Your task to perform on an android device: When is my next appointment? Image 0: 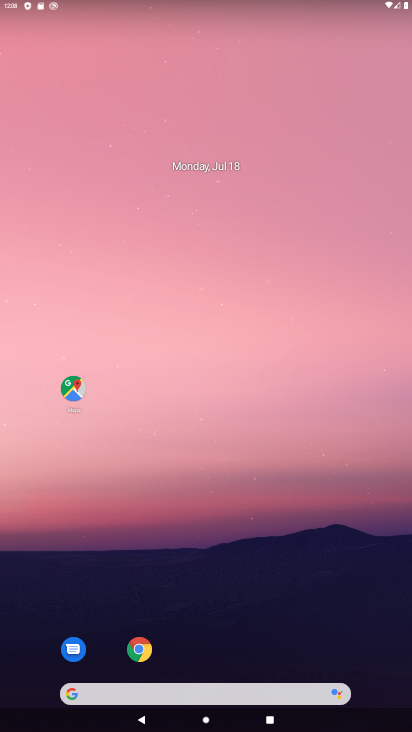
Step 0: drag from (206, 593) to (224, 31)
Your task to perform on an android device: When is my next appointment? Image 1: 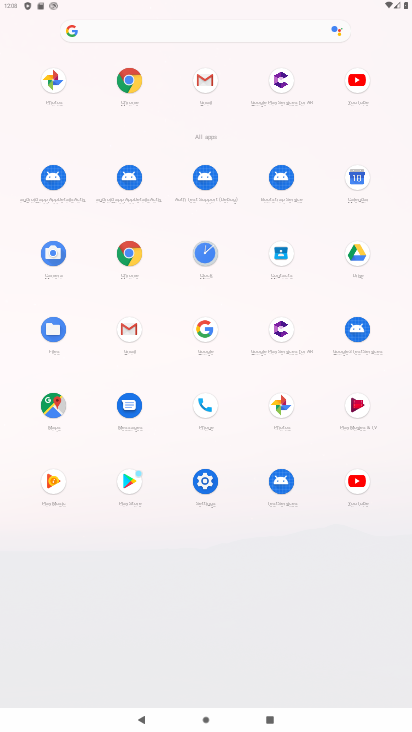
Step 1: click (360, 184)
Your task to perform on an android device: When is my next appointment? Image 2: 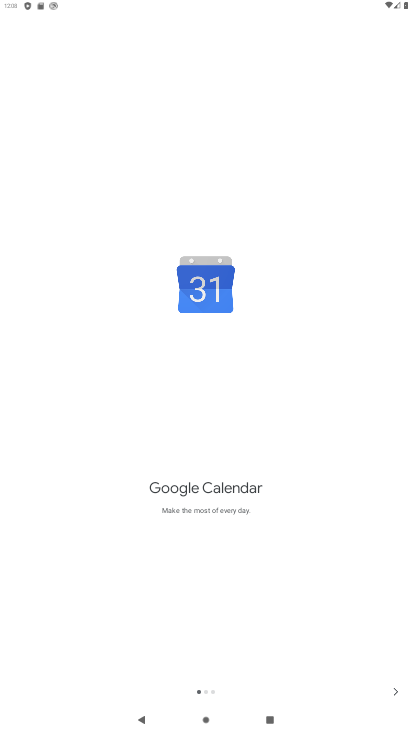
Step 2: click (390, 694)
Your task to perform on an android device: When is my next appointment? Image 3: 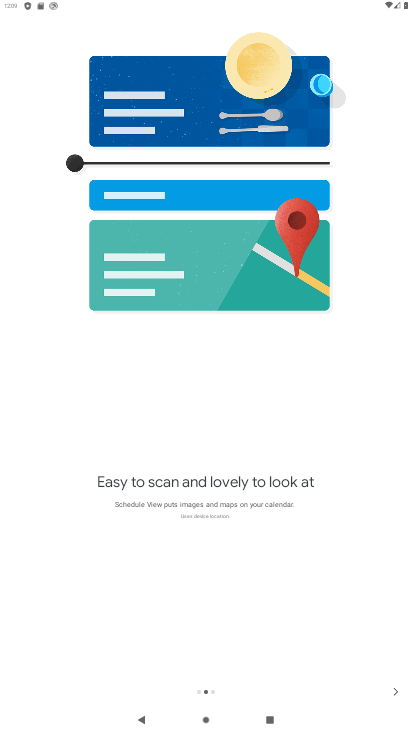
Step 3: click (390, 694)
Your task to perform on an android device: When is my next appointment? Image 4: 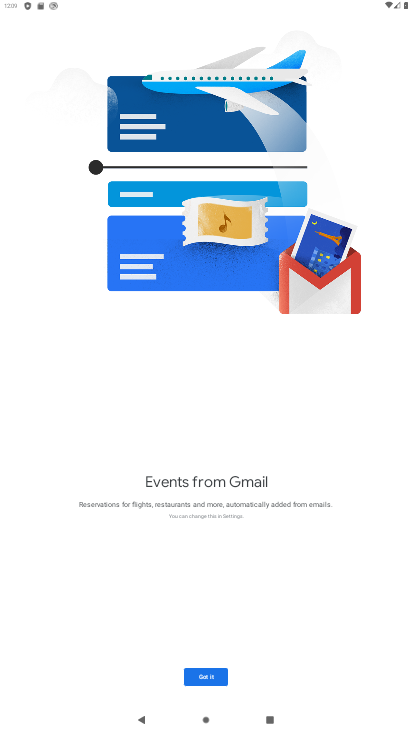
Step 4: click (390, 694)
Your task to perform on an android device: When is my next appointment? Image 5: 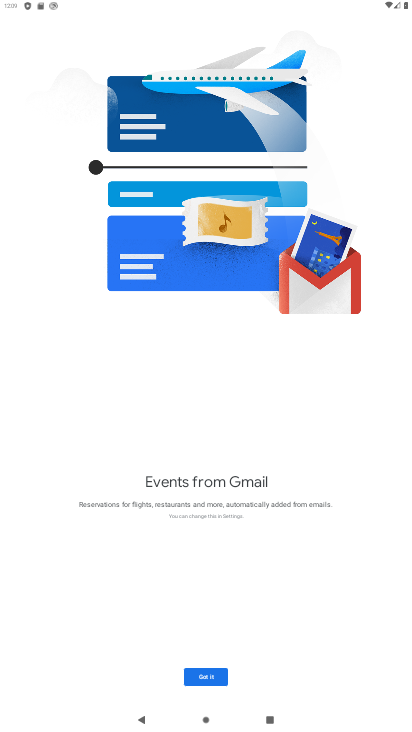
Step 5: click (193, 677)
Your task to perform on an android device: When is my next appointment? Image 6: 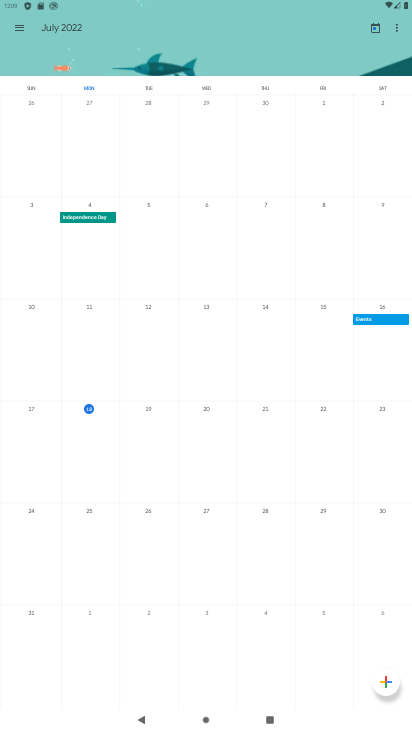
Step 6: task complete